Your task to perform on an android device: turn off notifications settings in the gmail app Image 0: 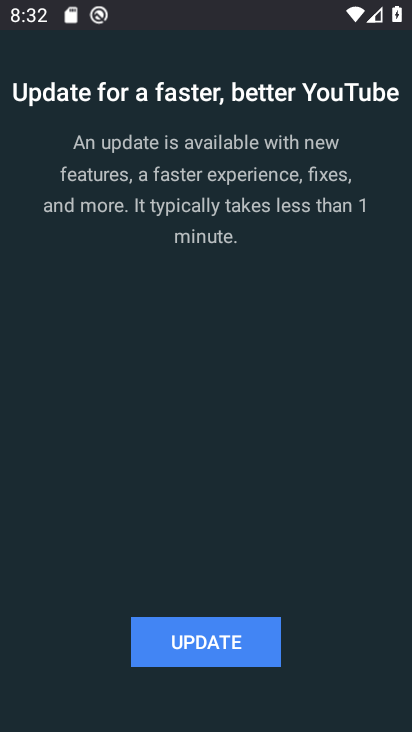
Step 0: press back button
Your task to perform on an android device: turn off notifications settings in the gmail app Image 1: 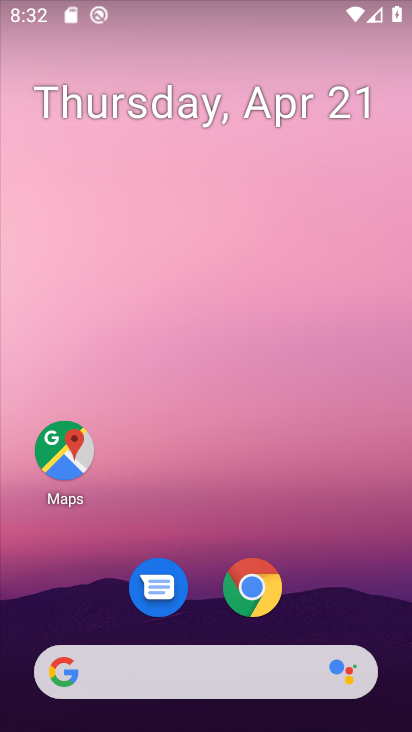
Step 1: drag from (392, 657) to (357, 177)
Your task to perform on an android device: turn off notifications settings in the gmail app Image 2: 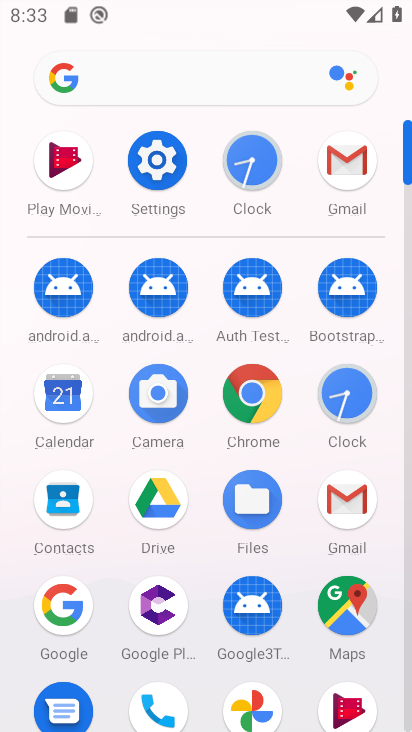
Step 2: click (334, 496)
Your task to perform on an android device: turn off notifications settings in the gmail app Image 3: 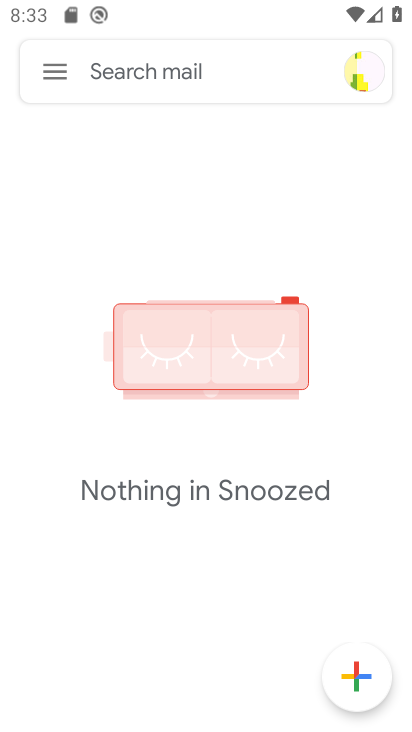
Step 3: click (56, 61)
Your task to perform on an android device: turn off notifications settings in the gmail app Image 4: 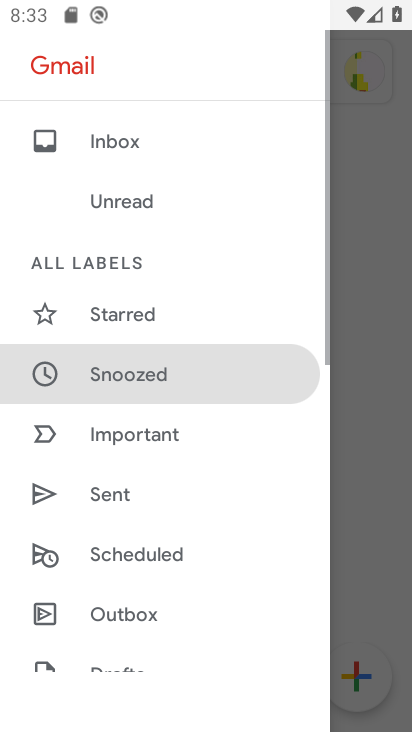
Step 4: drag from (271, 662) to (272, 287)
Your task to perform on an android device: turn off notifications settings in the gmail app Image 5: 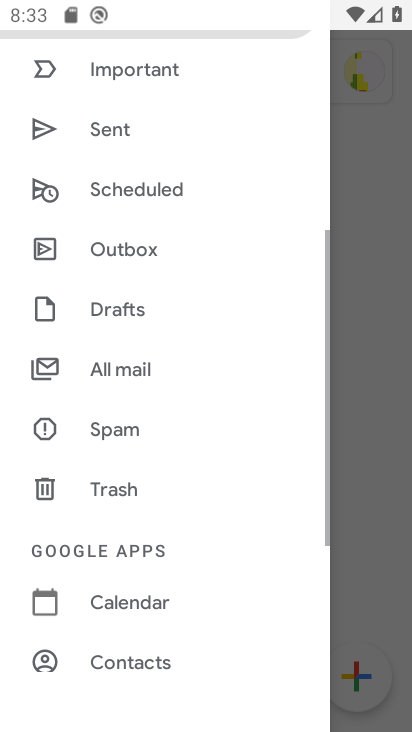
Step 5: drag from (245, 633) to (251, 397)
Your task to perform on an android device: turn off notifications settings in the gmail app Image 6: 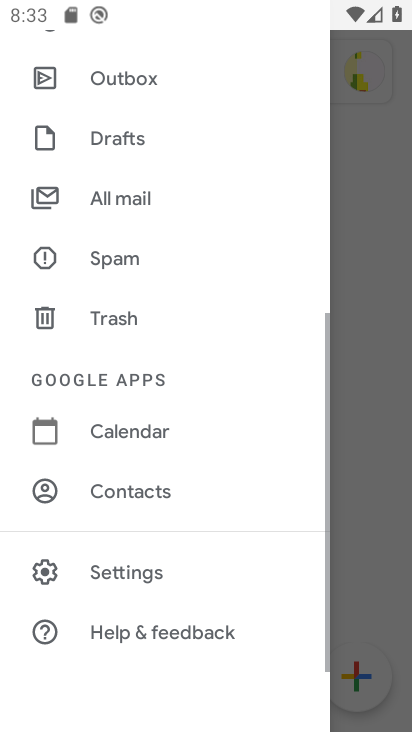
Step 6: click (126, 569)
Your task to perform on an android device: turn off notifications settings in the gmail app Image 7: 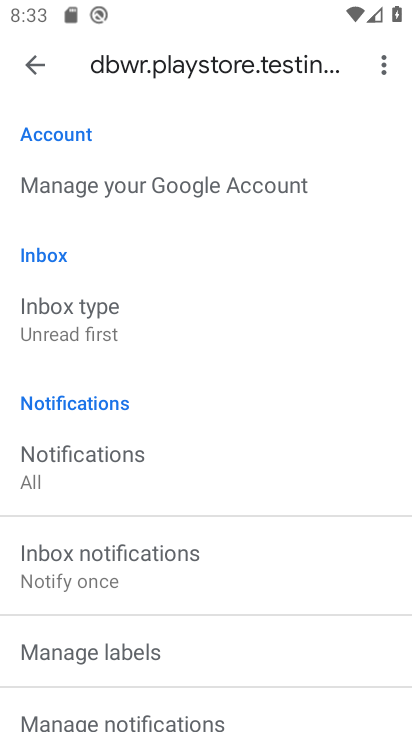
Step 7: click (83, 182)
Your task to perform on an android device: turn off notifications settings in the gmail app Image 8: 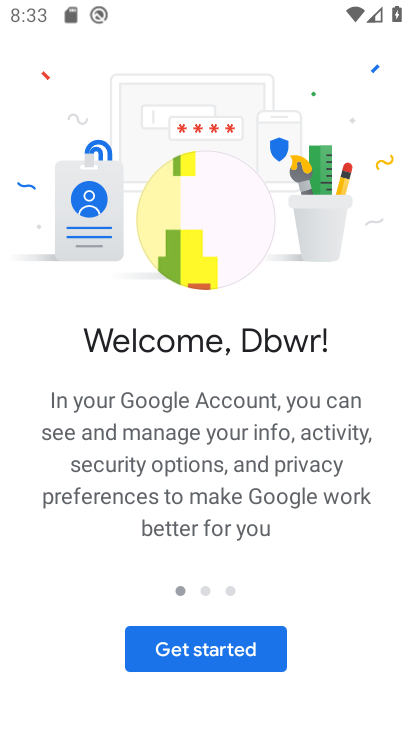
Step 8: click (201, 645)
Your task to perform on an android device: turn off notifications settings in the gmail app Image 9: 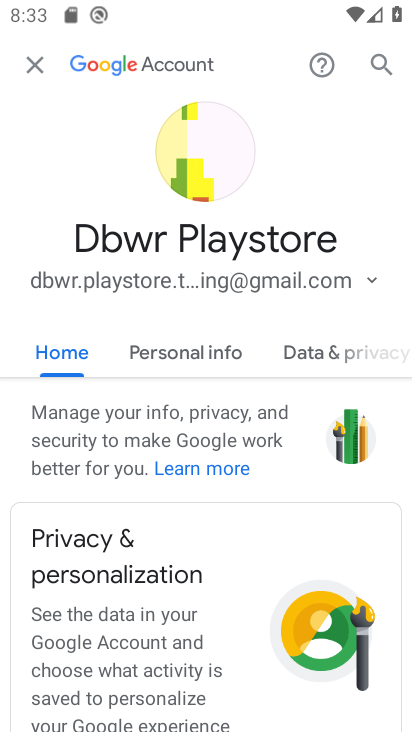
Step 9: press back button
Your task to perform on an android device: turn off notifications settings in the gmail app Image 10: 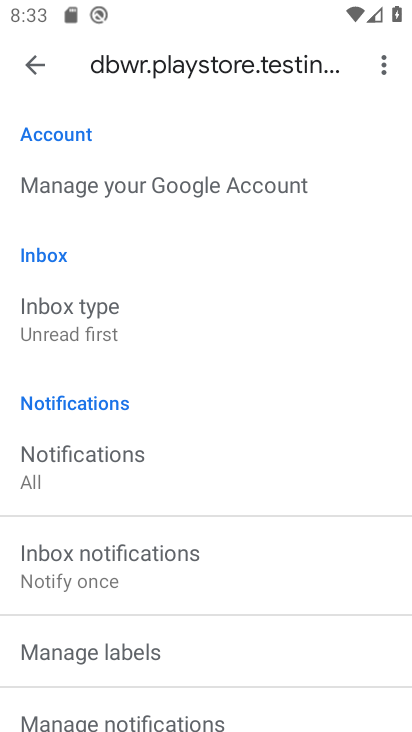
Step 10: click (82, 179)
Your task to perform on an android device: turn off notifications settings in the gmail app Image 11: 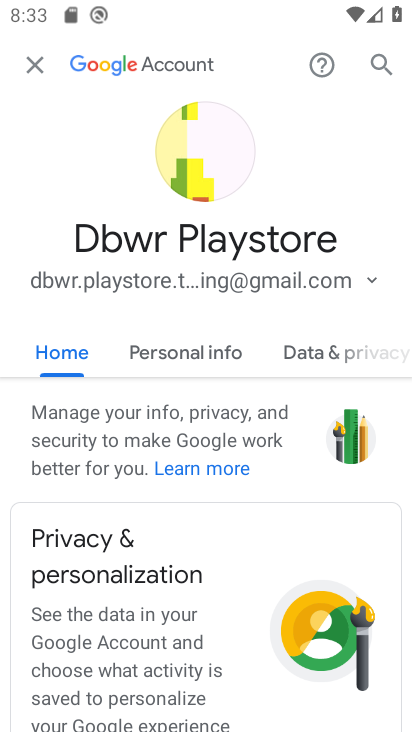
Step 11: press back button
Your task to perform on an android device: turn off notifications settings in the gmail app Image 12: 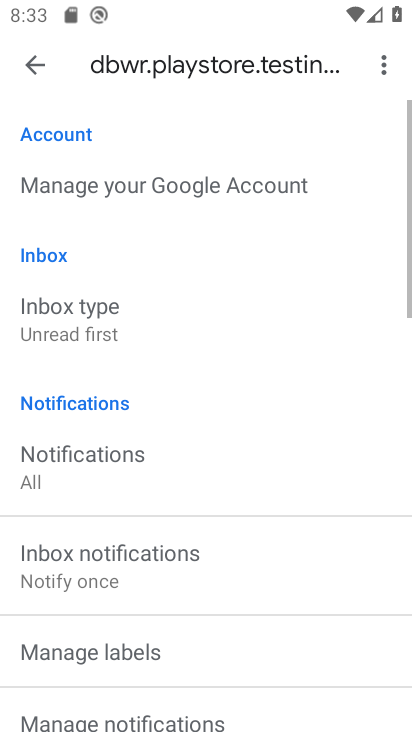
Step 12: click (68, 458)
Your task to perform on an android device: turn off notifications settings in the gmail app Image 13: 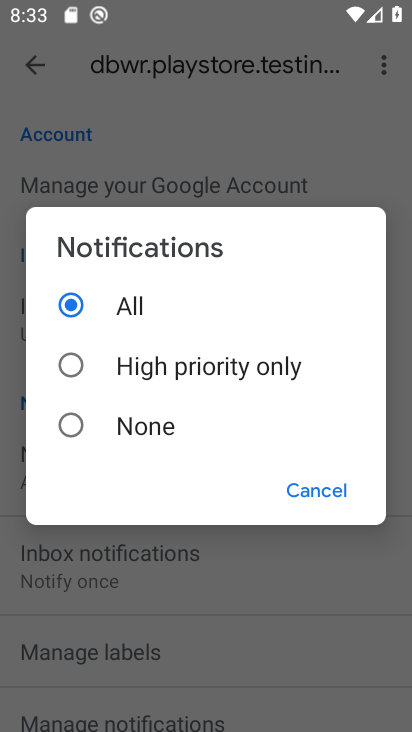
Step 13: click (317, 484)
Your task to perform on an android device: turn off notifications settings in the gmail app Image 14: 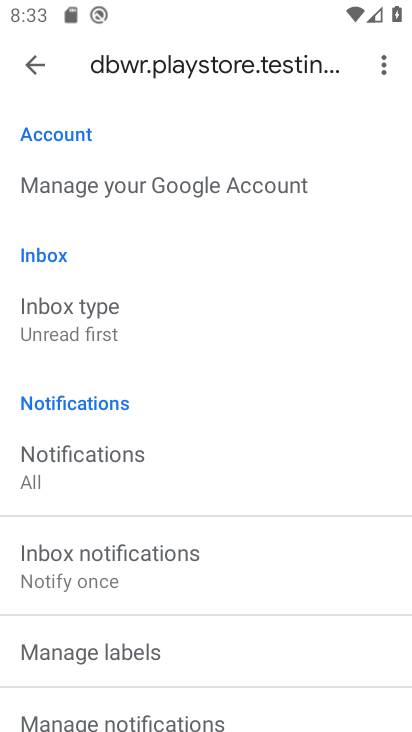
Step 14: click (33, 58)
Your task to perform on an android device: turn off notifications settings in the gmail app Image 15: 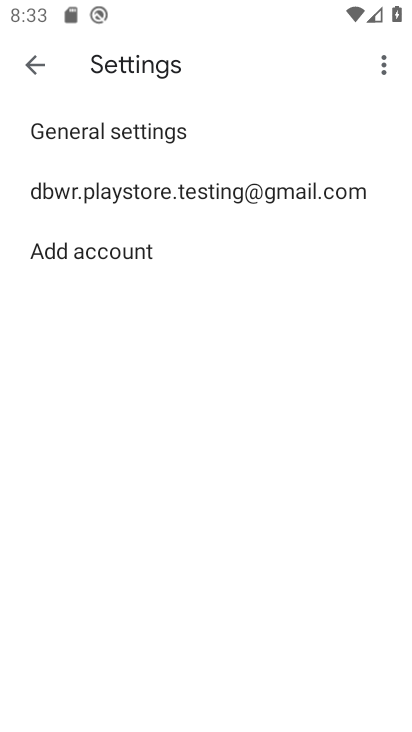
Step 15: click (104, 130)
Your task to perform on an android device: turn off notifications settings in the gmail app Image 16: 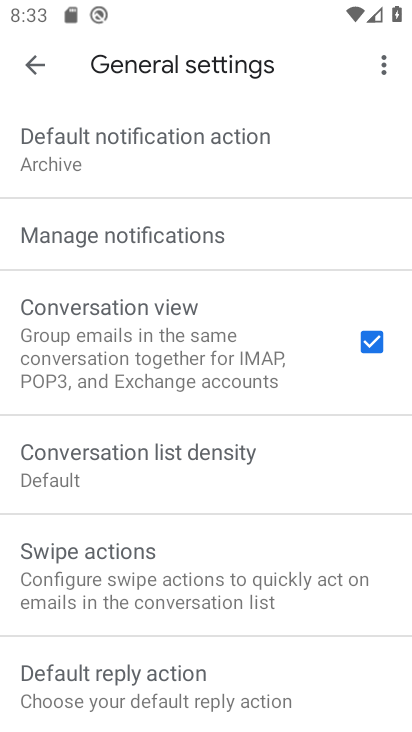
Step 16: click (151, 241)
Your task to perform on an android device: turn off notifications settings in the gmail app Image 17: 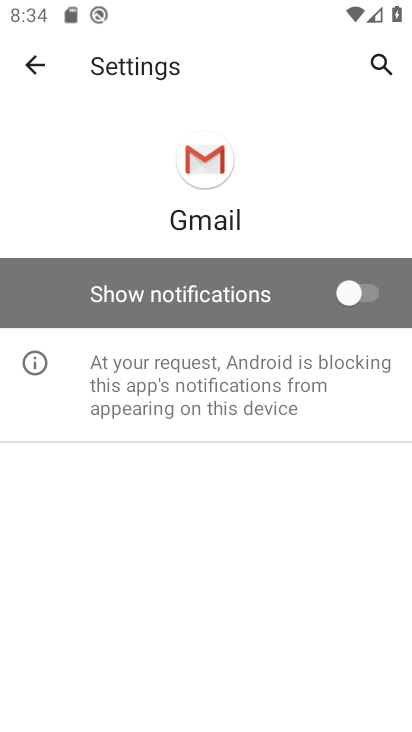
Step 17: task complete